Your task to perform on an android device: Open Google Maps and go to "Timeline" Image 0: 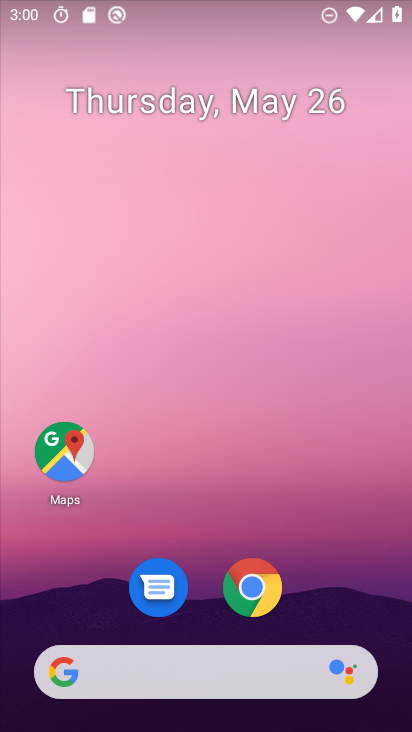
Step 0: click (54, 455)
Your task to perform on an android device: Open Google Maps and go to "Timeline" Image 1: 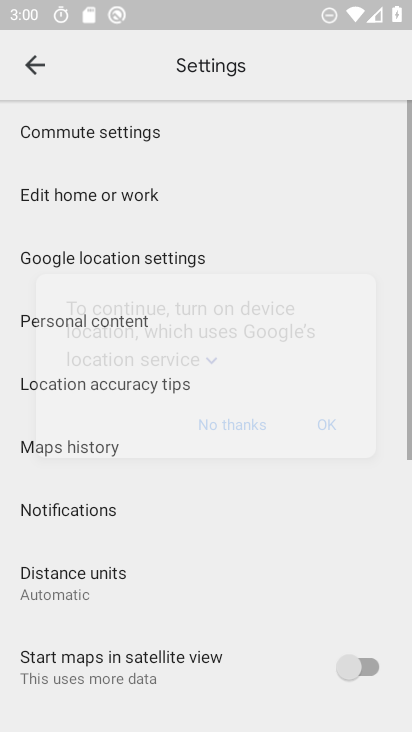
Step 1: click (23, 71)
Your task to perform on an android device: Open Google Maps and go to "Timeline" Image 2: 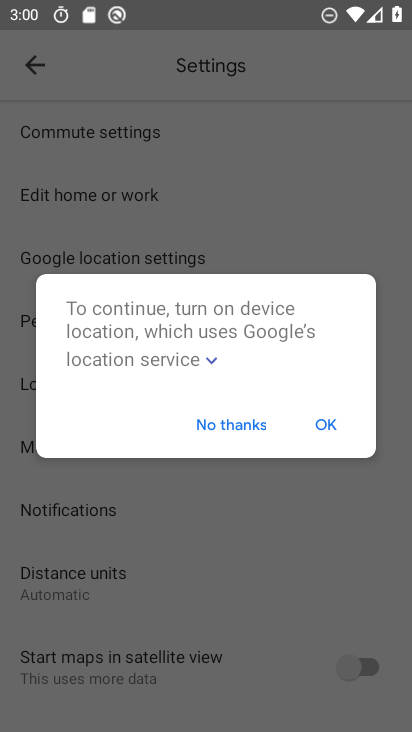
Step 2: click (319, 440)
Your task to perform on an android device: Open Google Maps and go to "Timeline" Image 3: 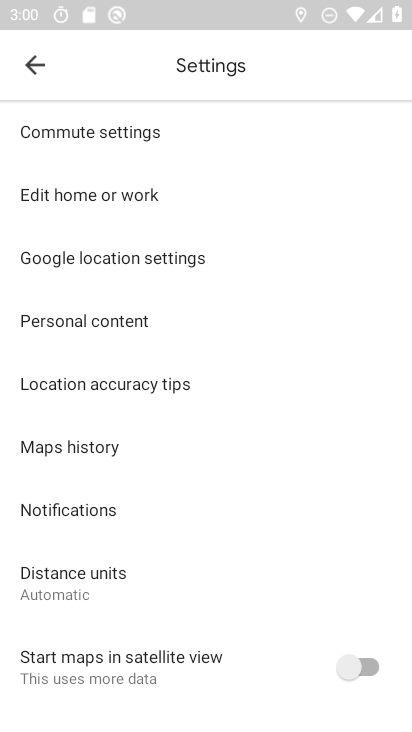
Step 3: click (36, 73)
Your task to perform on an android device: Open Google Maps and go to "Timeline" Image 4: 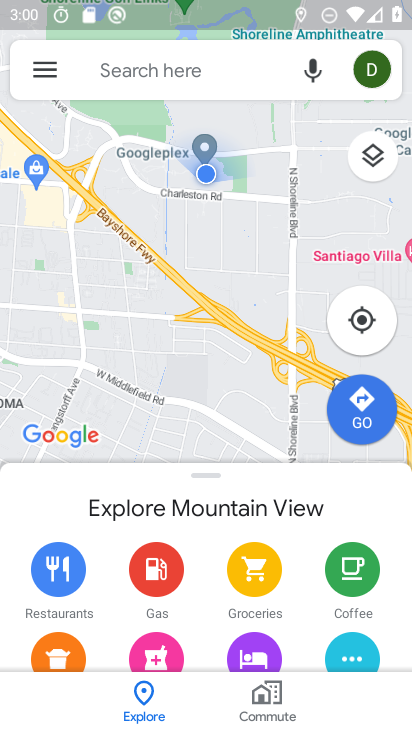
Step 4: click (36, 73)
Your task to perform on an android device: Open Google Maps and go to "Timeline" Image 5: 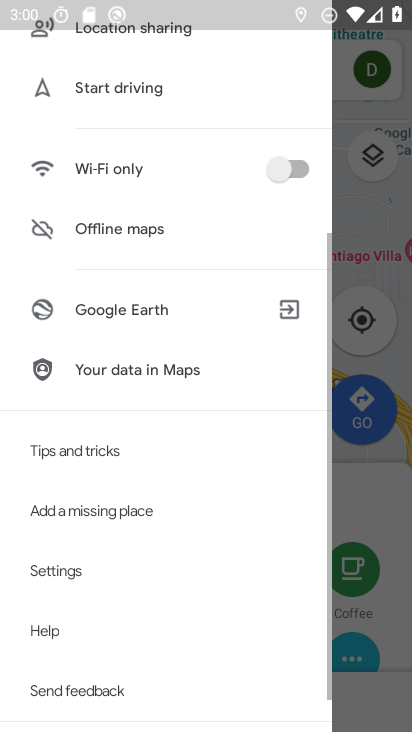
Step 5: drag from (197, 172) to (216, 679)
Your task to perform on an android device: Open Google Maps and go to "Timeline" Image 6: 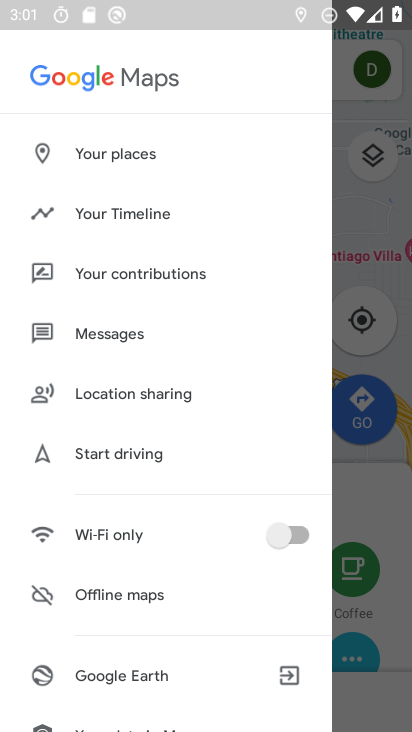
Step 6: click (148, 197)
Your task to perform on an android device: Open Google Maps and go to "Timeline" Image 7: 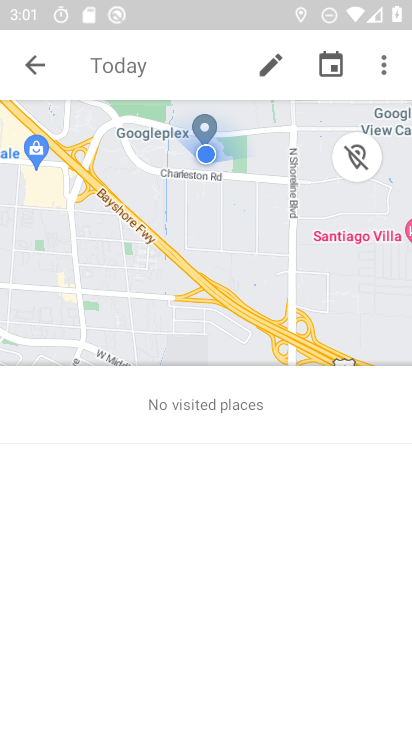
Step 7: task complete